Your task to perform on an android device: open chrome privacy settings Image 0: 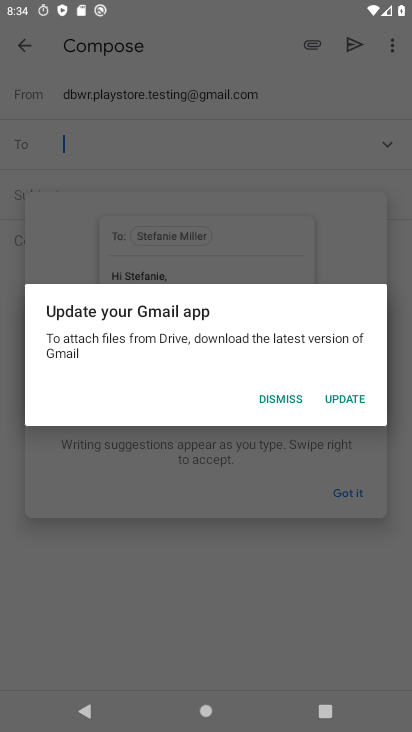
Step 0: press home button
Your task to perform on an android device: open chrome privacy settings Image 1: 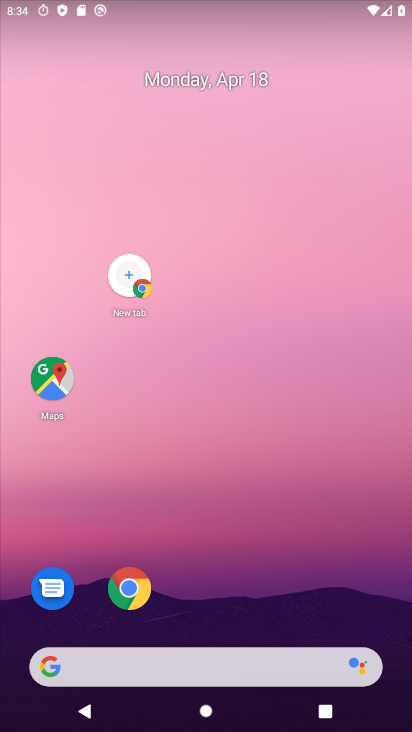
Step 1: drag from (277, 584) to (334, 65)
Your task to perform on an android device: open chrome privacy settings Image 2: 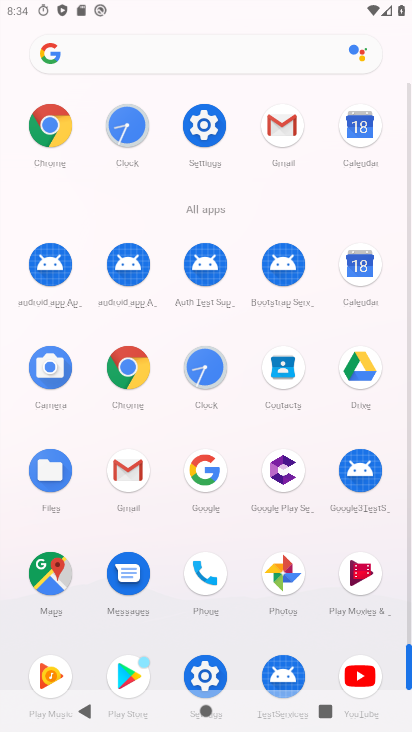
Step 2: click (49, 117)
Your task to perform on an android device: open chrome privacy settings Image 3: 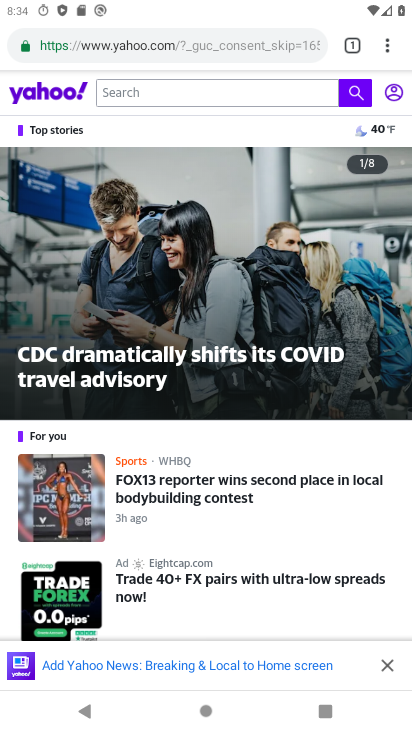
Step 3: drag from (392, 48) to (283, 501)
Your task to perform on an android device: open chrome privacy settings Image 4: 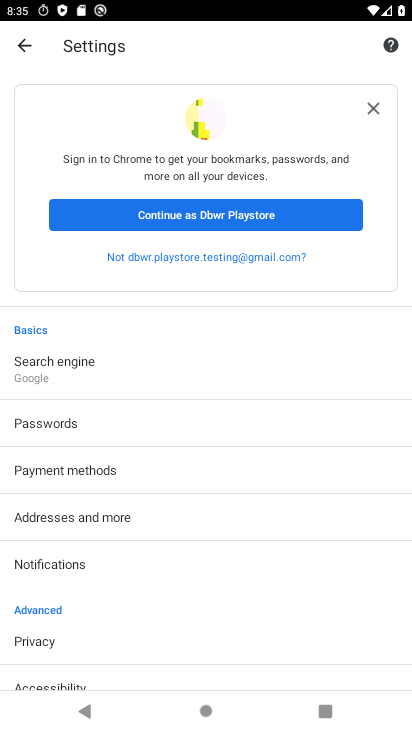
Step 4: drag from (239, 513) to (231, 323)
Your task to perform on an android device: open chrome privacy settings Image 5: 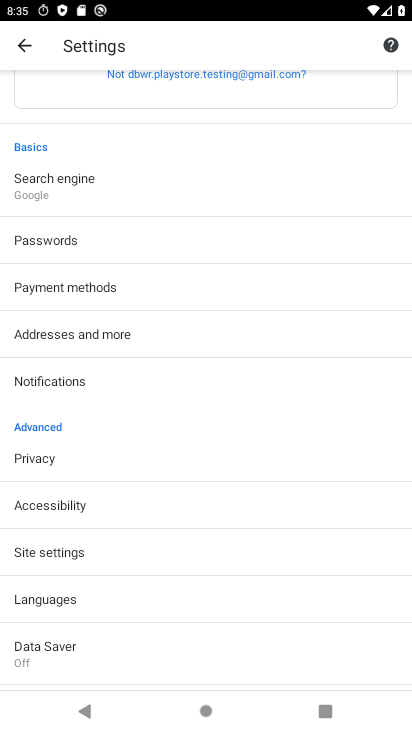
Step 5: click (72, 460)
Your task to perform on an android device: open chrome privacy settings Image 6: 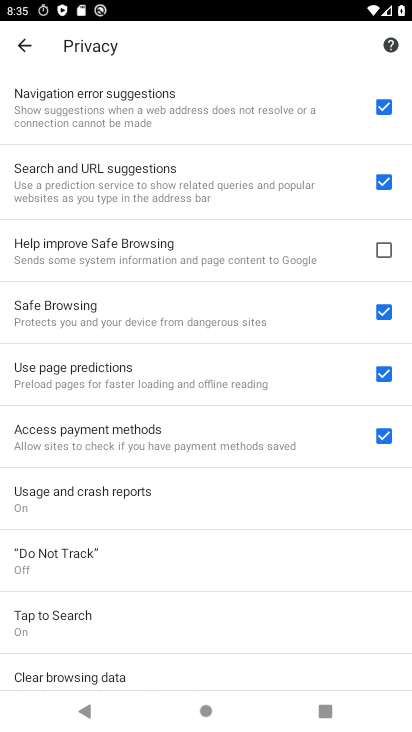
Step 6: task complete